Your task to perform on an android device: toggle show notifications on the lock screen Image 0: 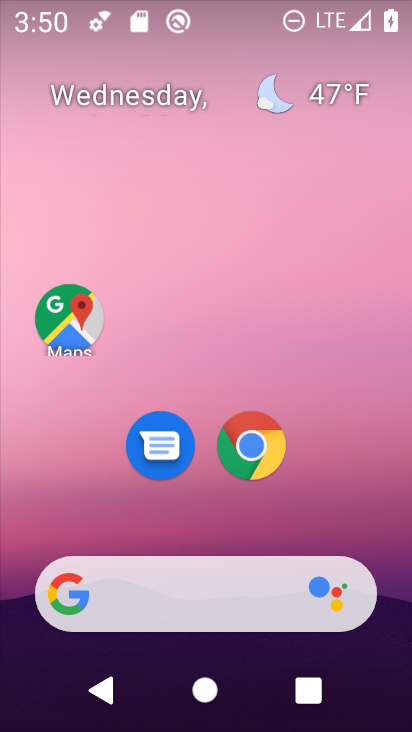
Step 0: drag from (339, 406) to (309, 11)
Your task to perform on an android device: toggle show notifications on the lock screen Image 1: 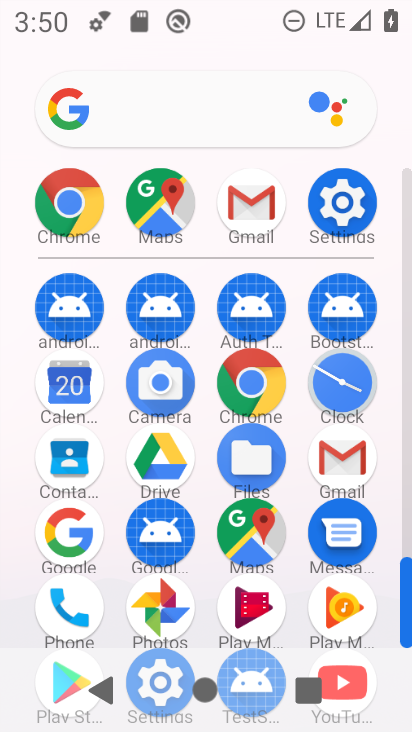
Step 1: click (343, 203)
Your task to perform on an android device: toggle show notifications on the lock screen Image 2: 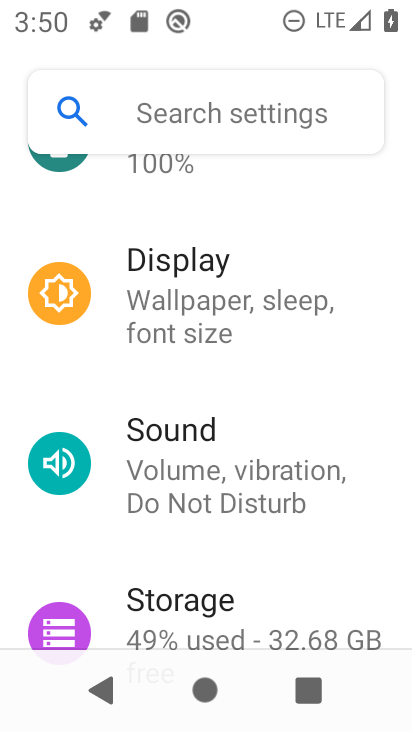
Step 2: drag from (278, 388) to (296, 484)
Your task to perform on an android device: toggle show notifications on the lock screen Image 3: 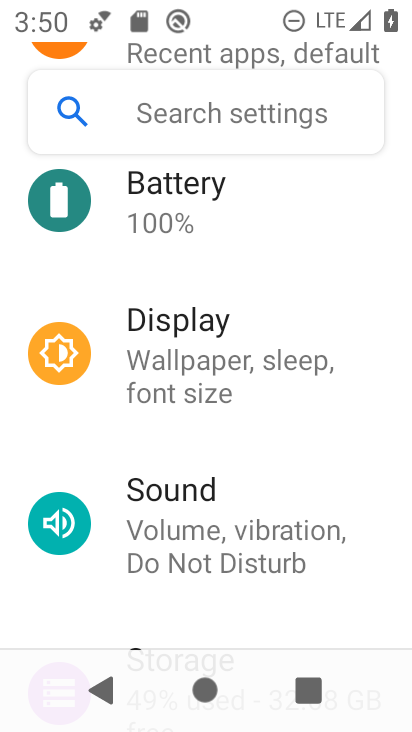
Step 3: drag from (280, 324) to (284, 471)
Your task to perform on an android device: toggle show notifications on the lock screen Image 4: 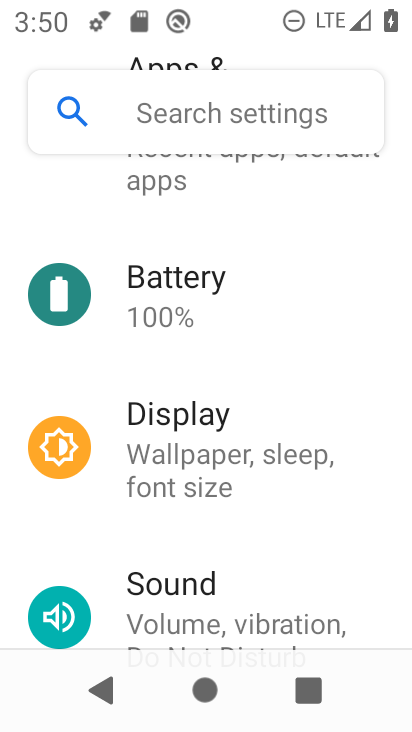
Step 4: drag from (265, 360) to (264, 491)
Your task to perform on an android device: toggle show notifications on the lock screen Image 5: 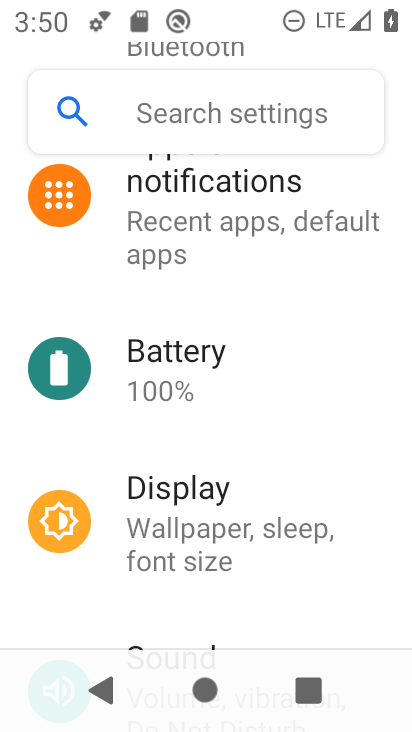
Step 5: drag from (272, 375) to (297, 491)
Your task to perform on an android device: toggle show notifications on the lock screen Image 6: 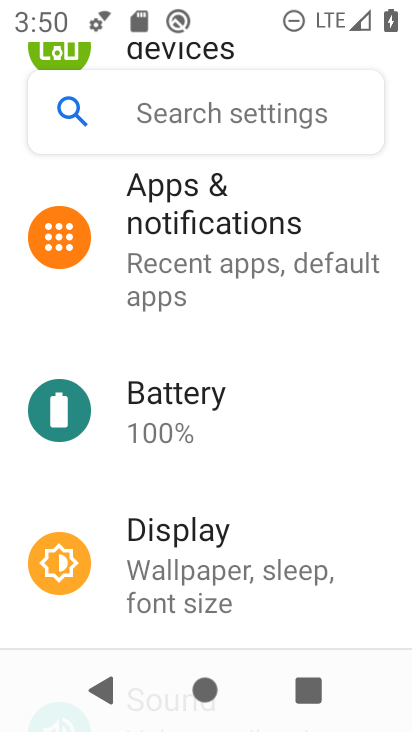
Step 6: drag from (281, 423) to (306, 536)
Your task to perform on an android device: toggle show notifications on the lock screen Image 7: 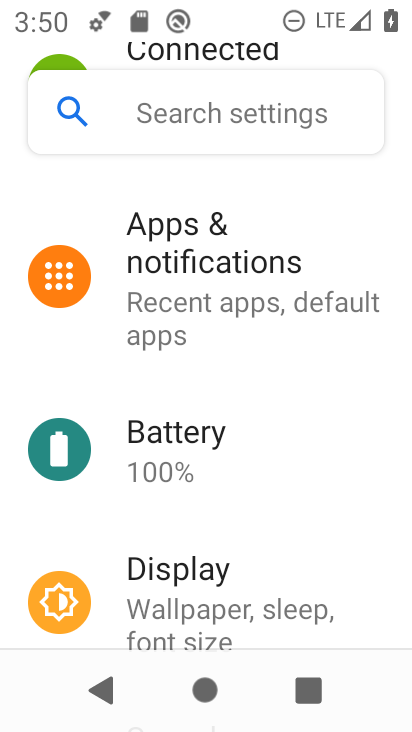
Step 7: click (219, 269)
Your task to perform on an android device: toggle show notifications on the lock screen Image 8: 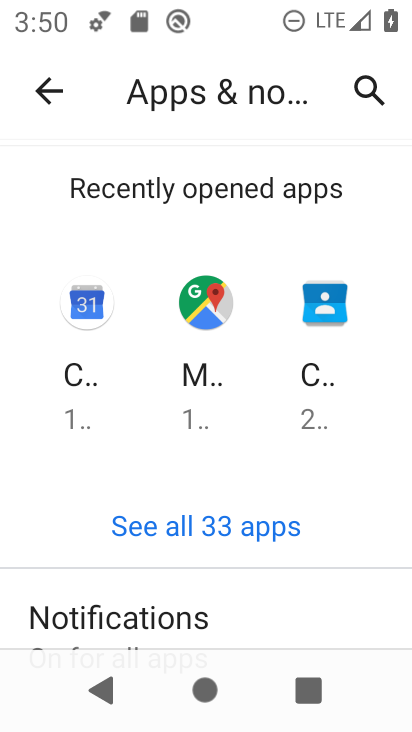
Step 8: drag from (248, 623) to (271, 471)
Your task to perform on an android device: toggle show notifications on the lock screen Image 9: 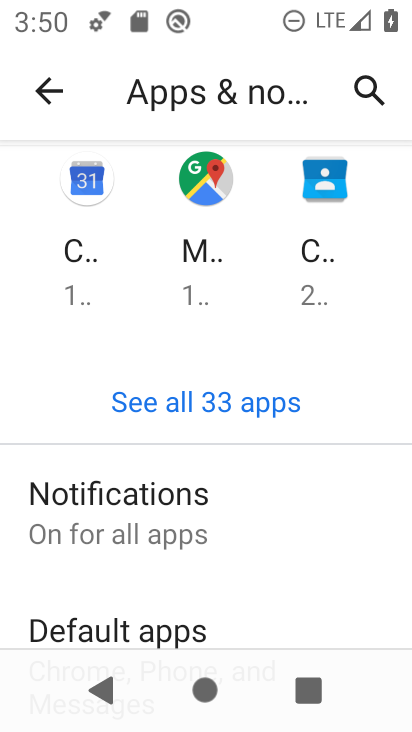
Step 9: click (137, 498)
Your task to perform on an android device: toggle show notifications on the lock screen Image 10: 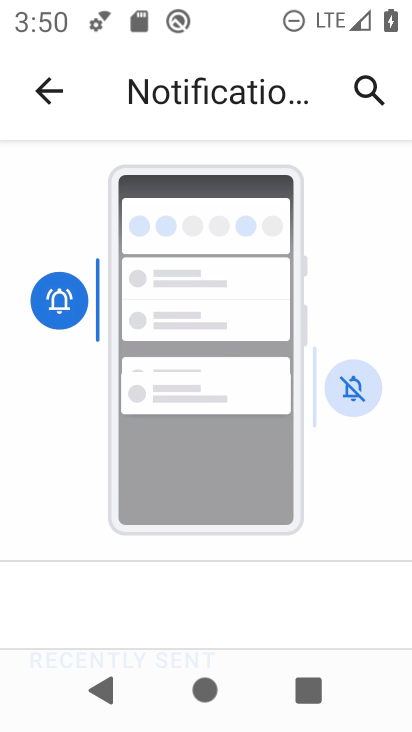
Step 10: drag from (277, 604) to (279, 380)
Your task to perform on an android device: toggle show notifications on the lock screen Image 11: 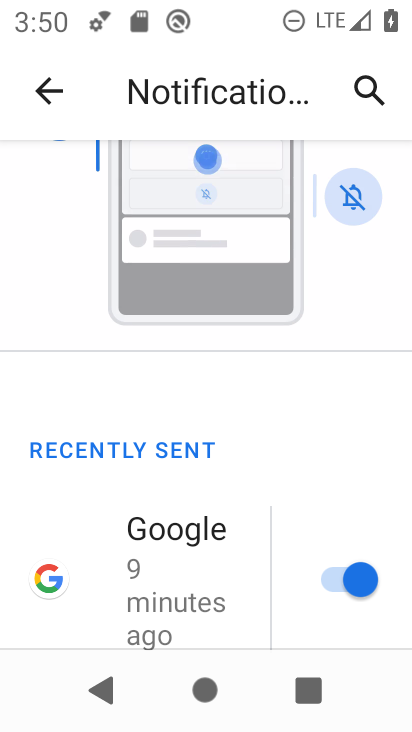
Step 11: drag from (234, 573) to (300, 321)
Your task to perform on an android device: toggle show notifications on the lock screen Image 12: 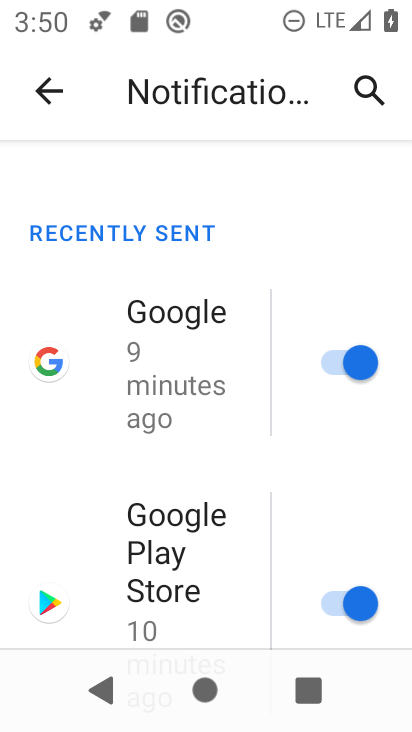
Step 12: drag from (250, 584) to (304, 338)
Your task to perform on an android device: toggle show notifications on the lock screen Image 13: 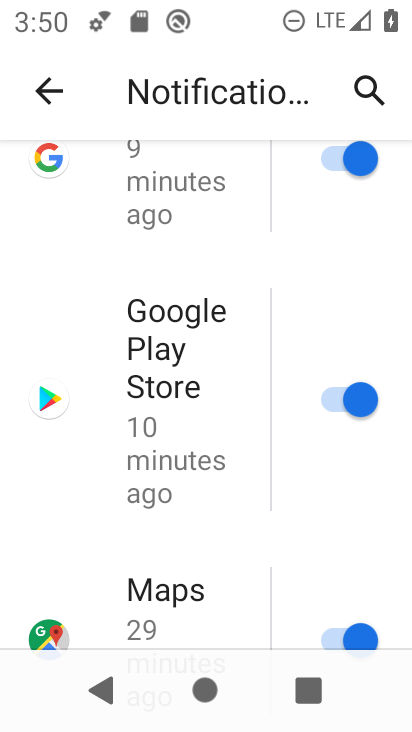
Step 13: drag from (259, 611) to (320, 310)
Your task to perform on an android device: toggle show notifications on the lock screen Image 14: 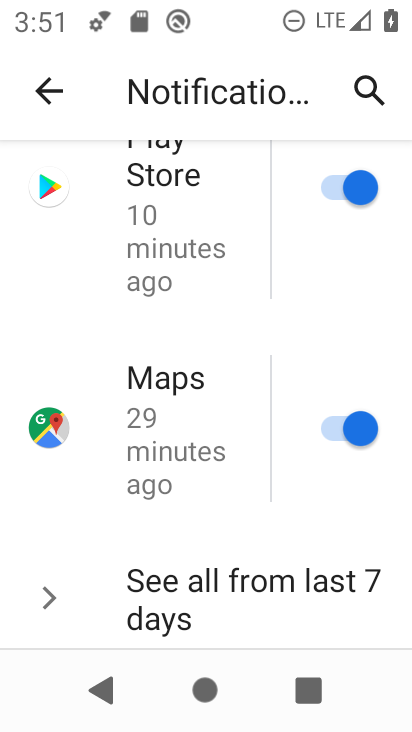
Step 14: drag from (247, 612) to (310, 287)
Your task to perform on an android device: toggle show notifications on the lock screen Image 15: 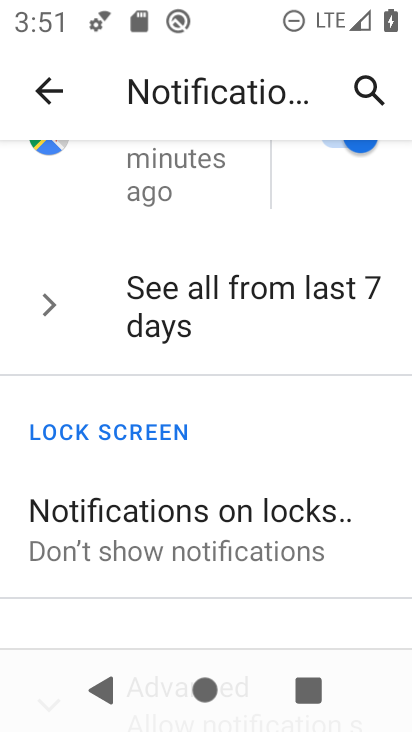
Step 15: click (220, 517)
Your task to perform on an android device: toggle show notifications on the lock screen Image 16: 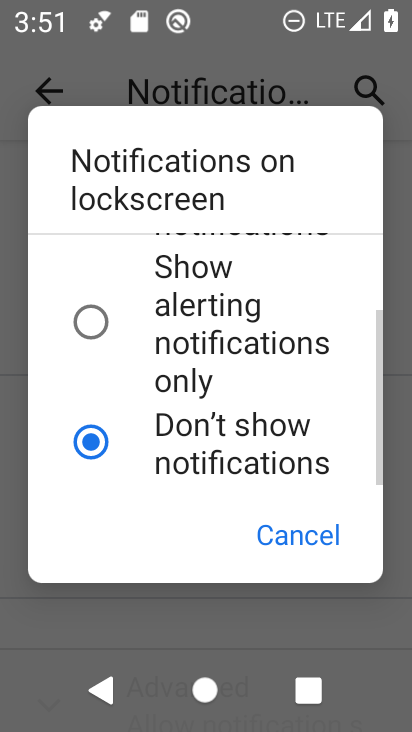
Step 16: drag from (296, 278) to (295, 438)
Your task to perform on an android device: toggle show notifications on the lock screen Image 17: 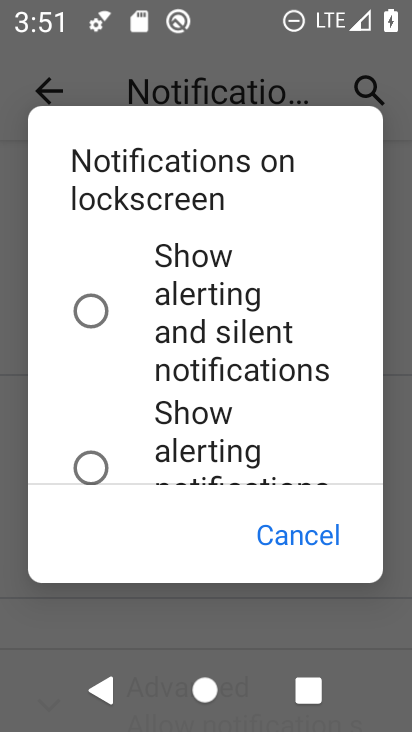
Step 17: click (92, 305)
Your task to perform on an android device: toggle show notifications on the lock screen Image 18: 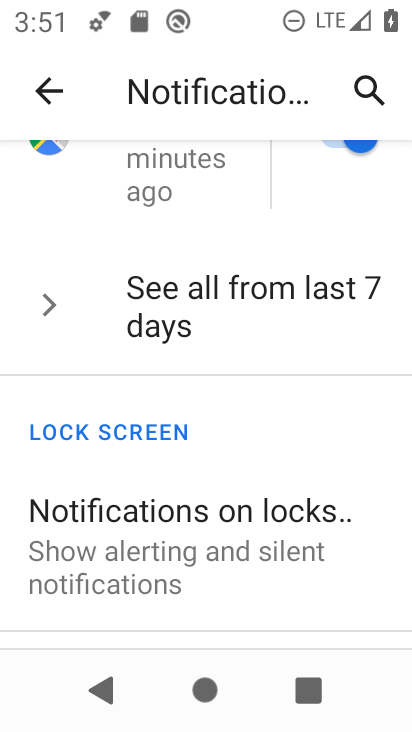
Step 18: task complete